Your task to perform on an android device: Do I have any events tomorrow? Image 0: 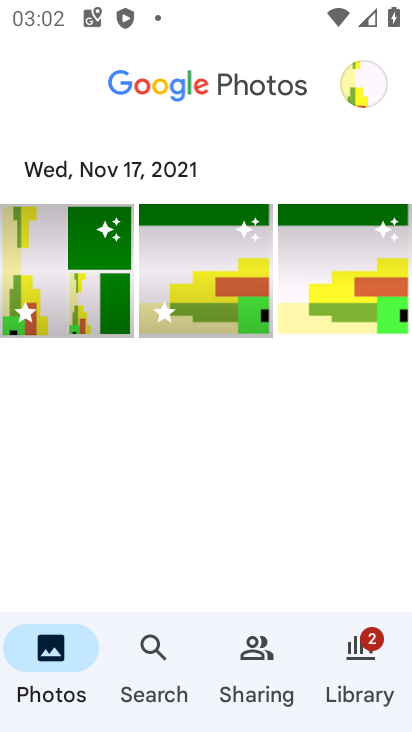
Step 0: press home button
Your task to perform on an android device: Do I have any events tomorrow? Image 1: 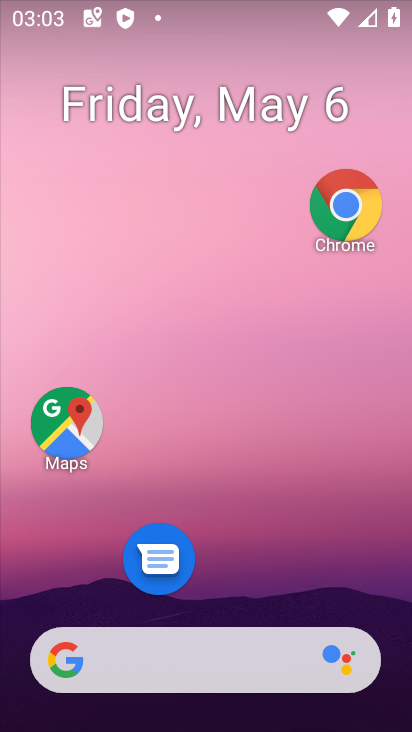
Step 1: drag from (153, 675) to (310, 116)
Your task to perform on an android device: Do I have any events tomorrow? Image 2: 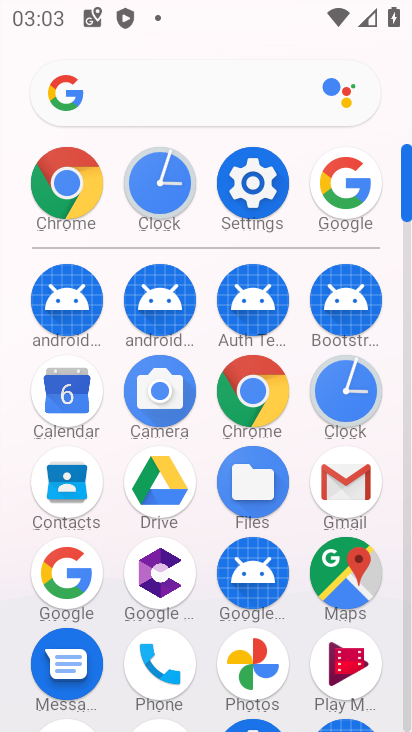
Step 2: click (69, 407)
Your task to perform on an android device: Do I have any events tomorrow? Image 3: 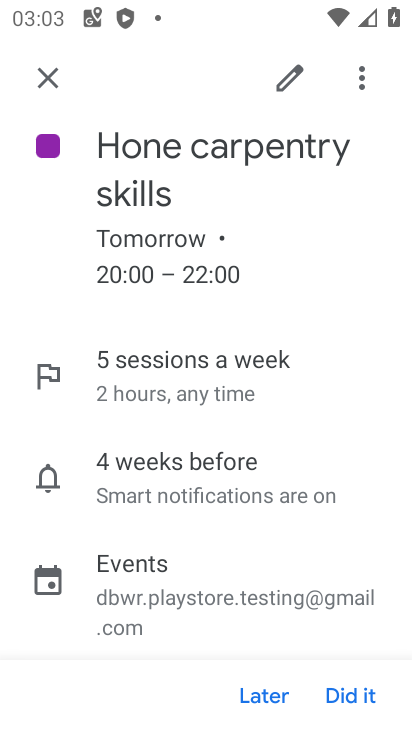
Step 3: task complete